Your task to perform on an android device: Search for Italian restaurants on Maps Image 0: 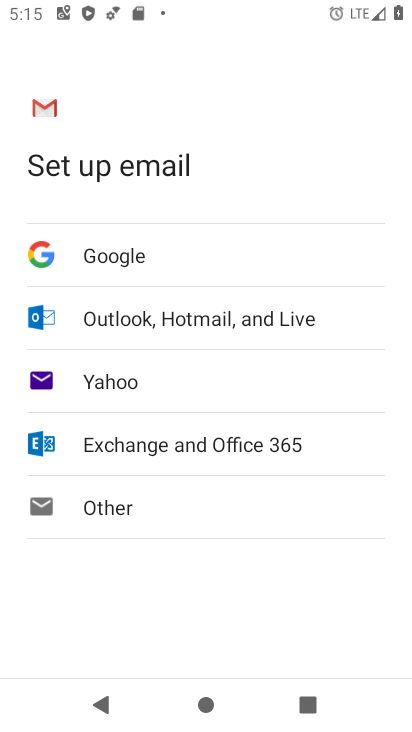
Step 0: drag from (305, 589) to (341, 102)
Your task to perform on an android device: Search for Italian restaurants on Maps Image 1: 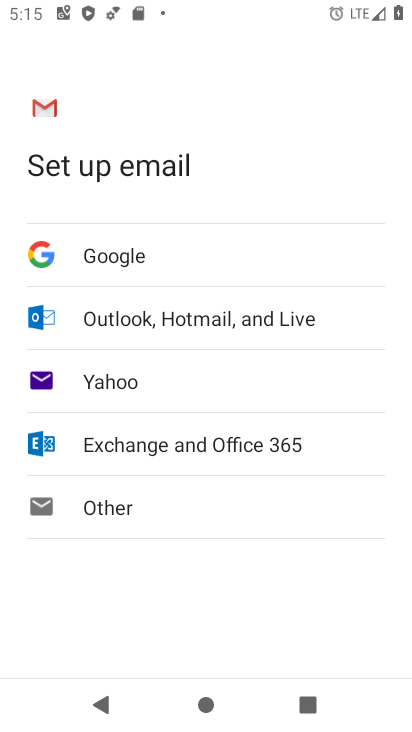
Step 1: press home button
Your task to perform on an android device: Search for Italian restaurants on Maps Image 2: 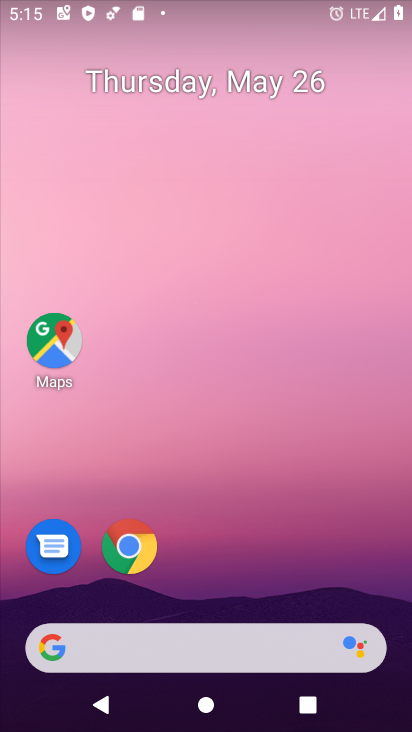
Step 2: drag from (215, 589) to (217, 58)
Your task to perform on an android device: Search for Italian restaurants on Maps Image 3: 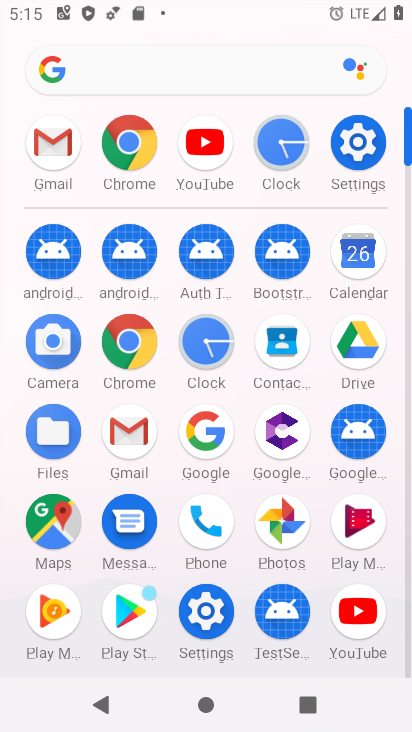
Step 3: click (206, 522)
Your task to perform on an android device: Search for Italian restaurants on Maps Image 4: 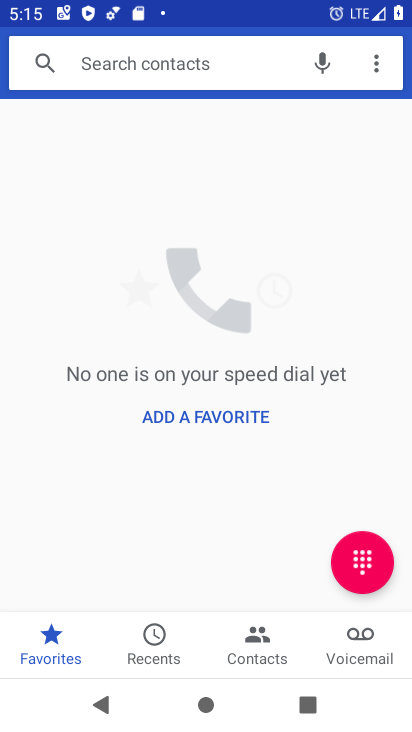
Step 4: press home button
Your task to perform on an android device: Search for Italian restaurants on Maps Image 5: 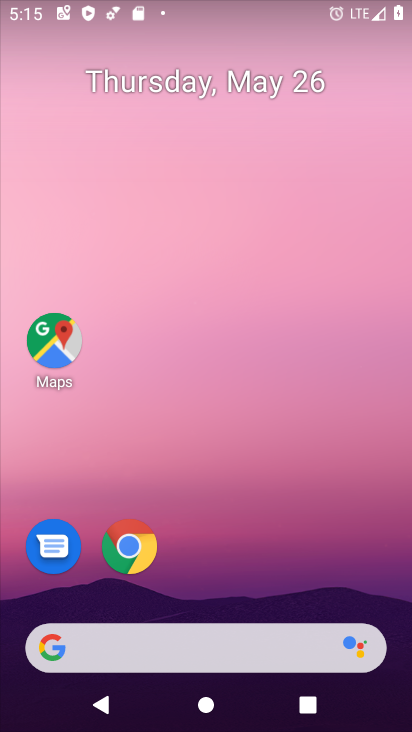
Step 5: click (150, 350)
Your task to perform on an android device: Search for Italian restaurants on Maps Image 6: 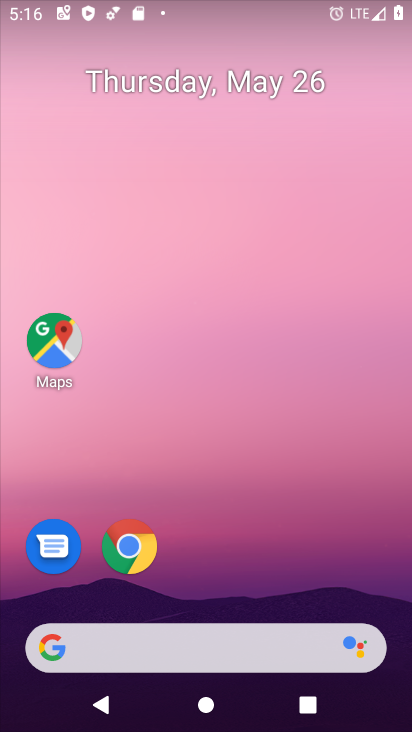
Step 6: click (50, 337)
Your task to perform on an android device: Search for Italian restaurants on Maps Image 7: 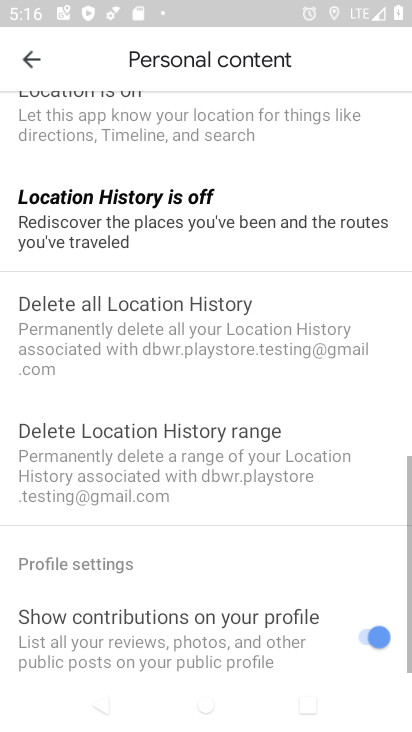
Step 7: click (33, 50)
Your task to perform on an android device: Search for Italian restaurants on Maps Image 8: 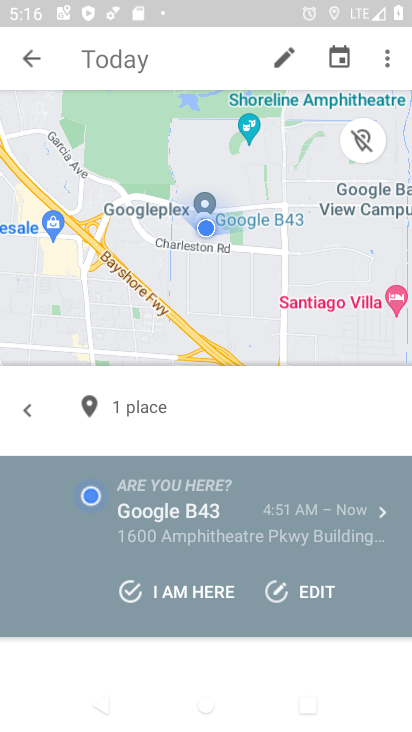
Step 8: click (38, 51)
Your task to perform on an android device: Search for Italian restaurants on Maps Image 9: 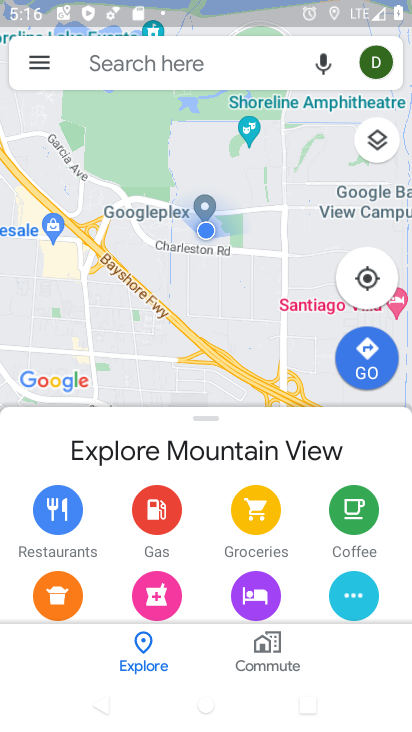
Step 9: click (172, 60)
Your task to perform on an android device: Search for Italian restaurants on Maps Image 10: 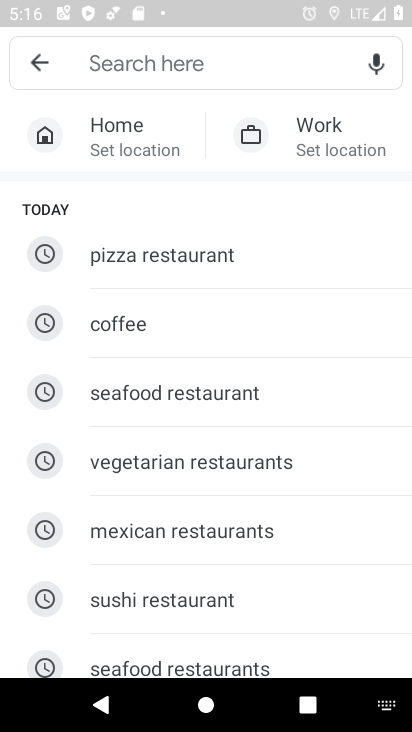
Step 10: drag from (166, 588) to (231, 208)
Your task to perform on an android device: Search for Italian restaurants on Maps Image 11: 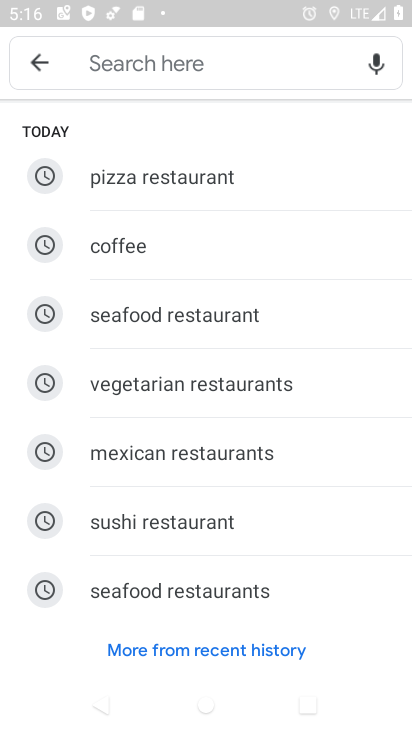
Step 11: click (111, 65)
Your task to perform on an android device: Search for Italian restaurants on Maps Image 12: 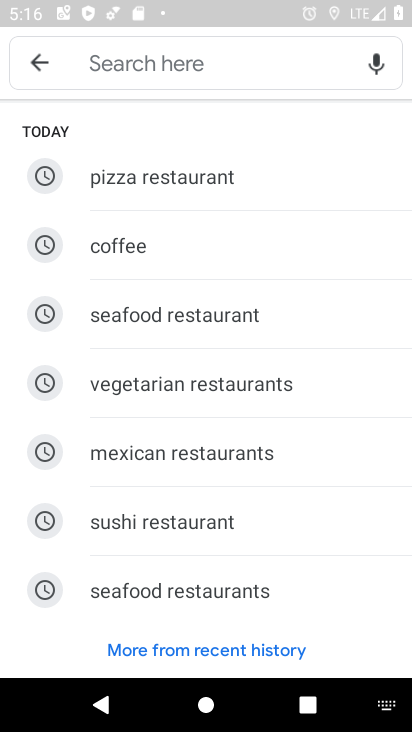
Step 12: type "italian restraunts"
Your task to perform on an android device: Search for Italian restaurants on Maps Image 13: 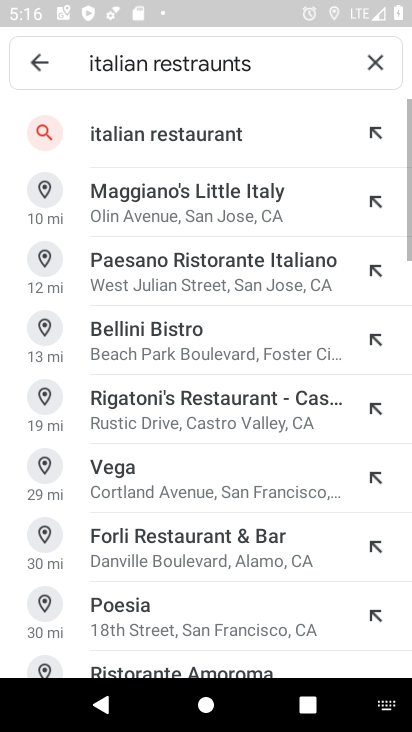
Step 13: click (185, 141)
Your task to perform on an android device: Search for Italian restaurants on Maps Image 14: 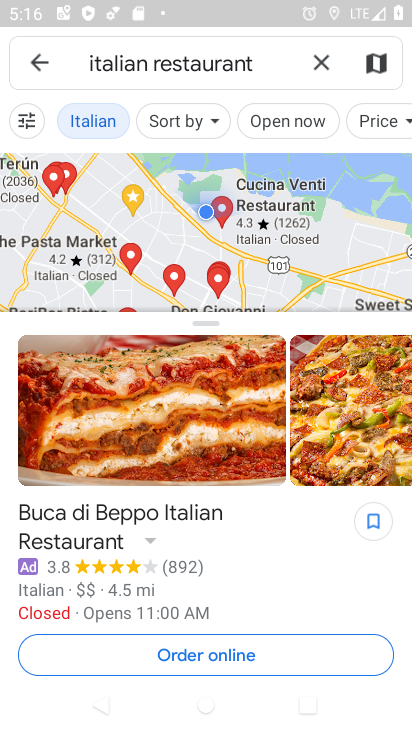
Step 14: task complete